Your task to perform on an android device: find which apps use the phone's location Image 0: 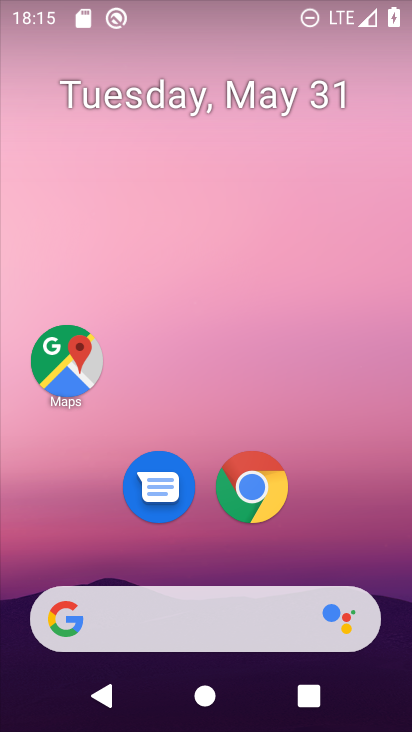
Step 0: drag from (337, 499) to (239, 111)
Your task to perform on an android device: find which apps use the phone's location Image 1: 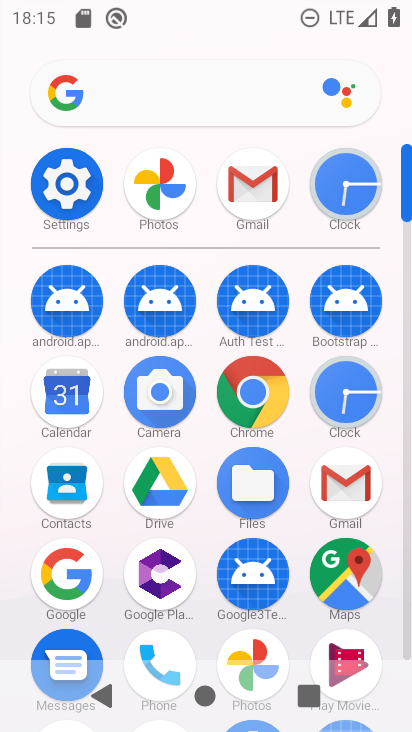
Step 1: click (74, 195)
Your task to perform on an android device: find which apps use the phone's location Image 2: 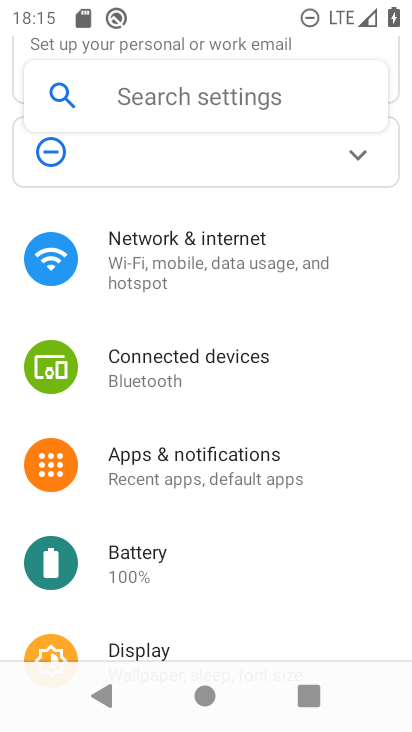
Step 2: drag from (208, 560) to (159, 217)
Your task to perform on an android device: find which apps use the phone's location Image 3: 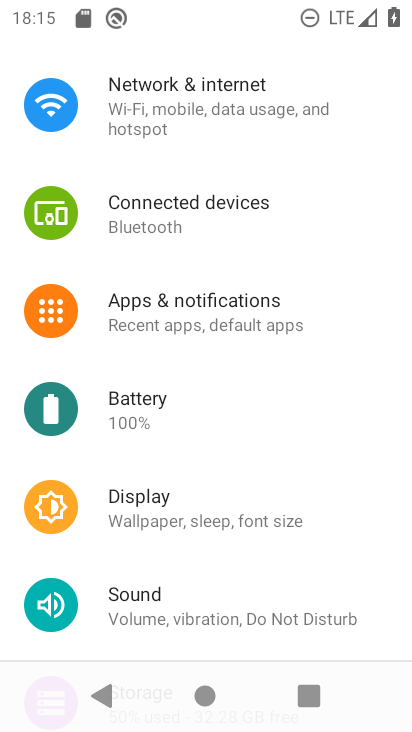
Step 3: drag from (227, 467) to (221, 195)
Your task to perform on an android device: find which apps use the phone's location Image 4: 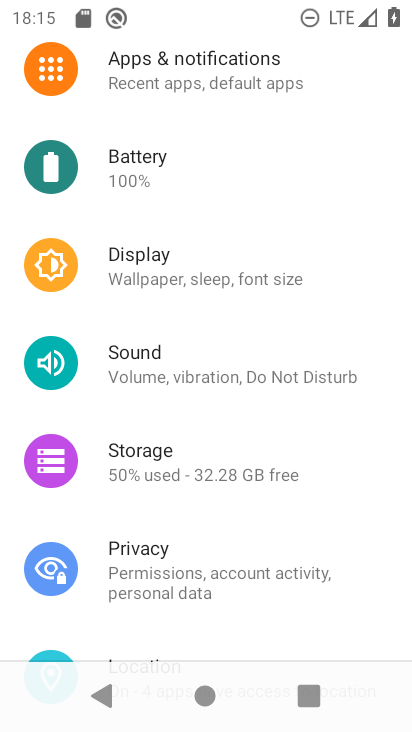
Step 4: drag from (217, 428) to (181, 76)
Your task to perform on an android device: find which apps use the phone's location Image 5: 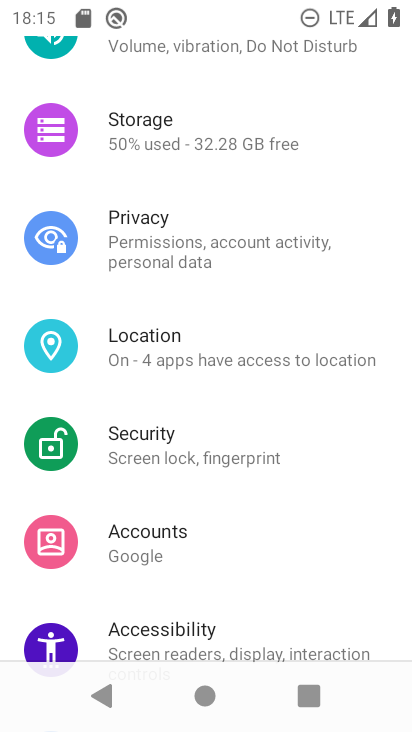
Step 5: click (140, 323)
Your task to perform on an android device: find which apps use the phone's location Image 6: 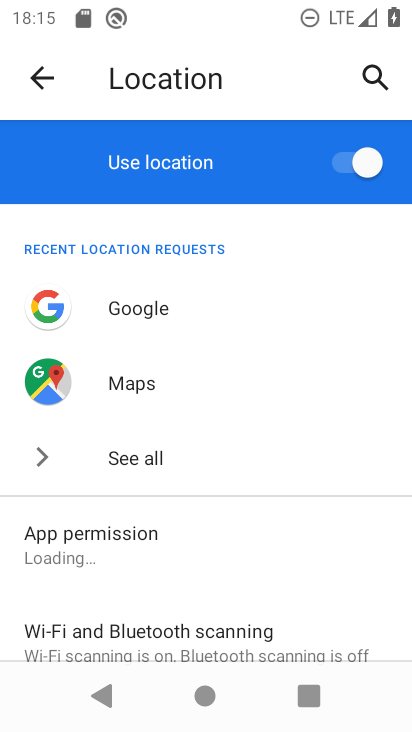
Step 6: click (119, 461)
Your task to perform on an android device: find which apps use the phone's location Image 7: 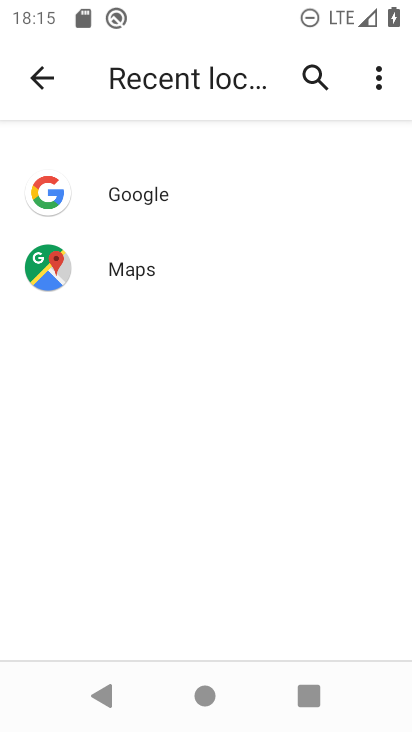
Step 7: task complete